Your task to perform on an android device: Find the nearest electronics store that's open tomorrow Image 0: 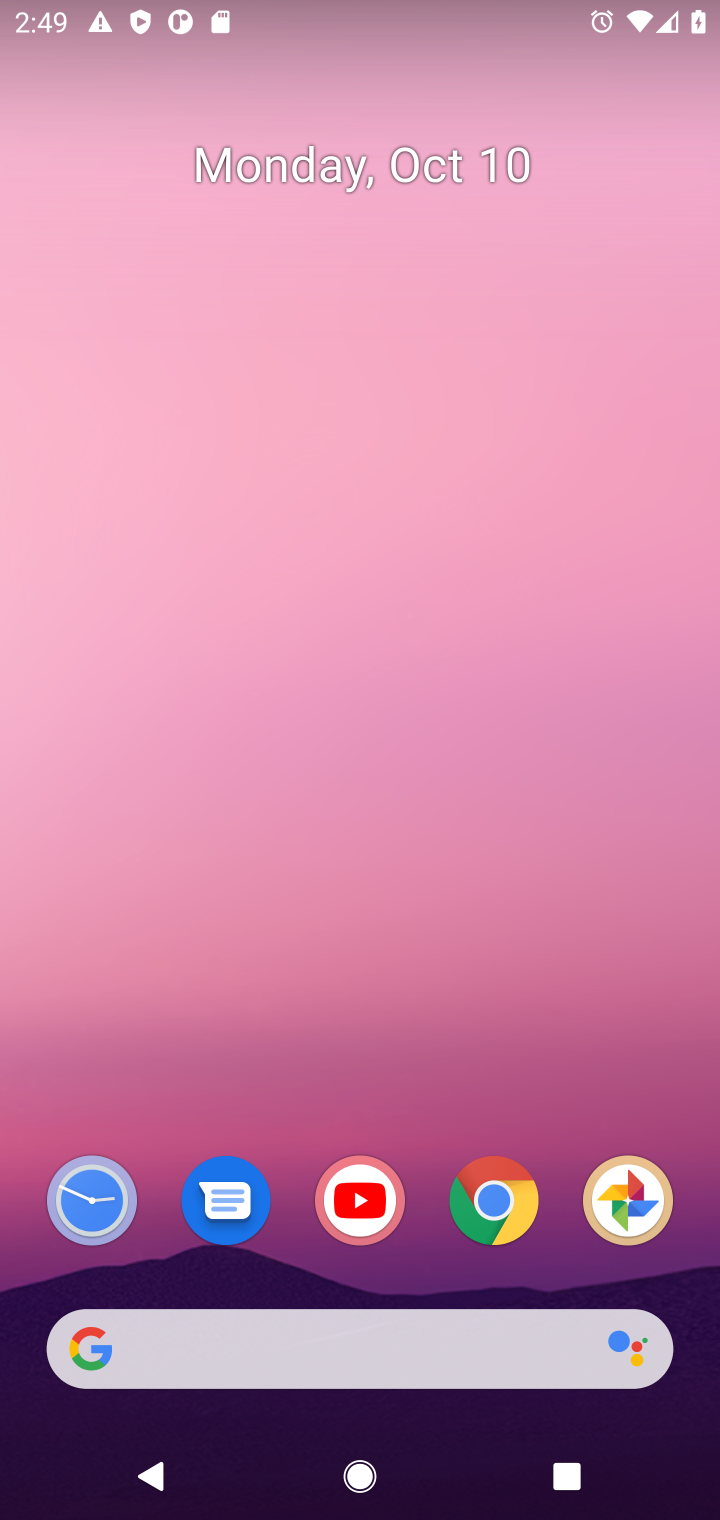
Step 0: drag from (305, 1086) to (166, 350)
Your task to perform on an android device: Find the nearest electronics store that's open tomorrow Image 1: 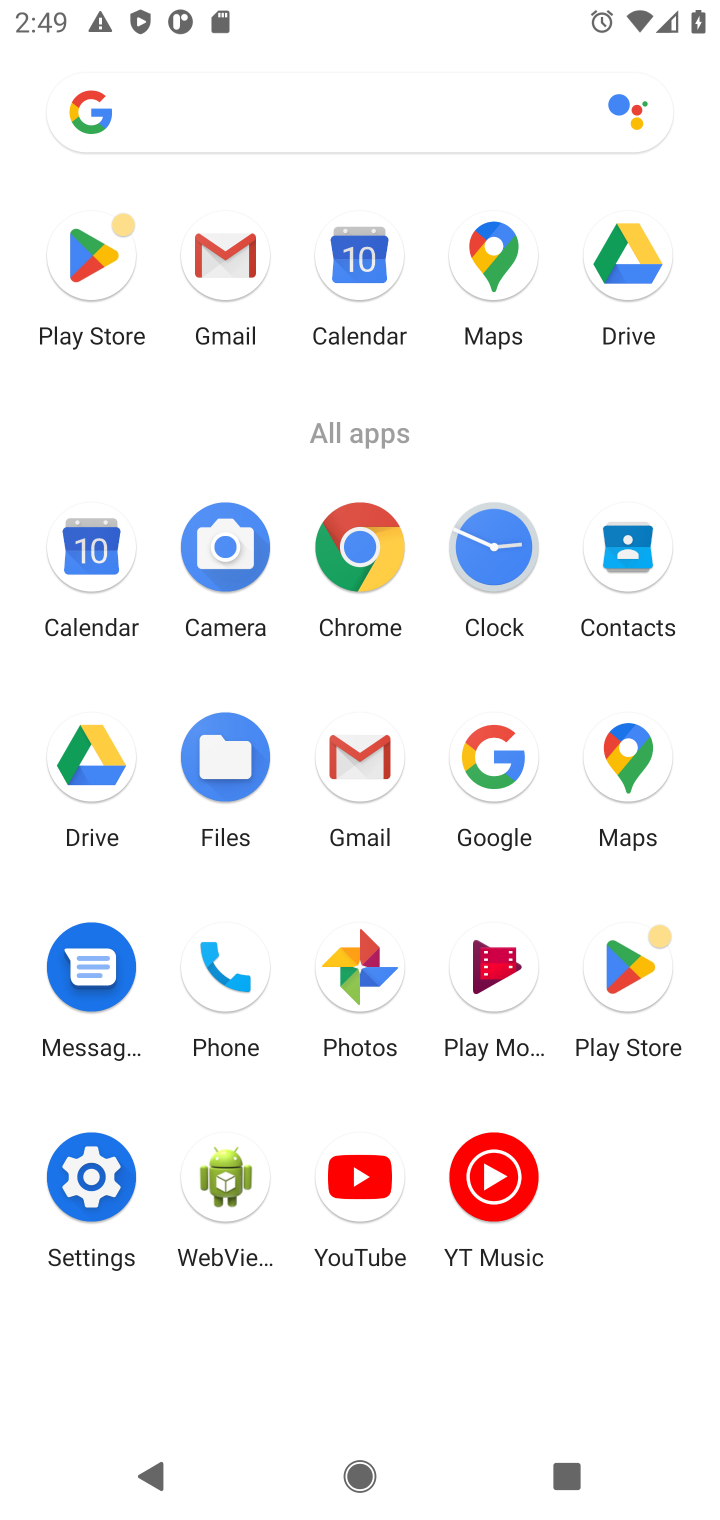
Step 1: click (509, 281)
Your task to perform on an android device: Find the nearest electronics store that's open tomorrow Image 2: 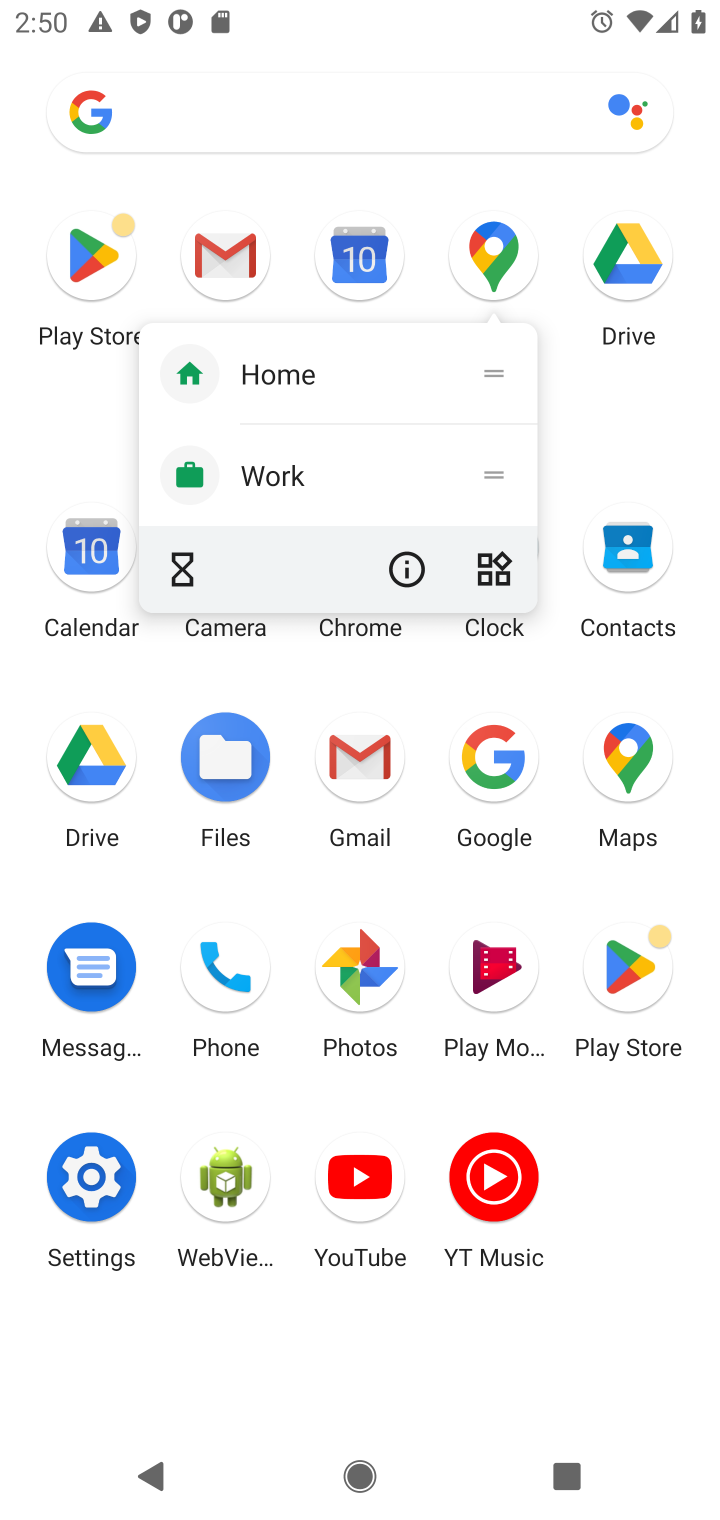
Step 2: click (487, 256)
Your task to perform on an android device: Find the nearest electronics store that's open tomorrow Image 3: 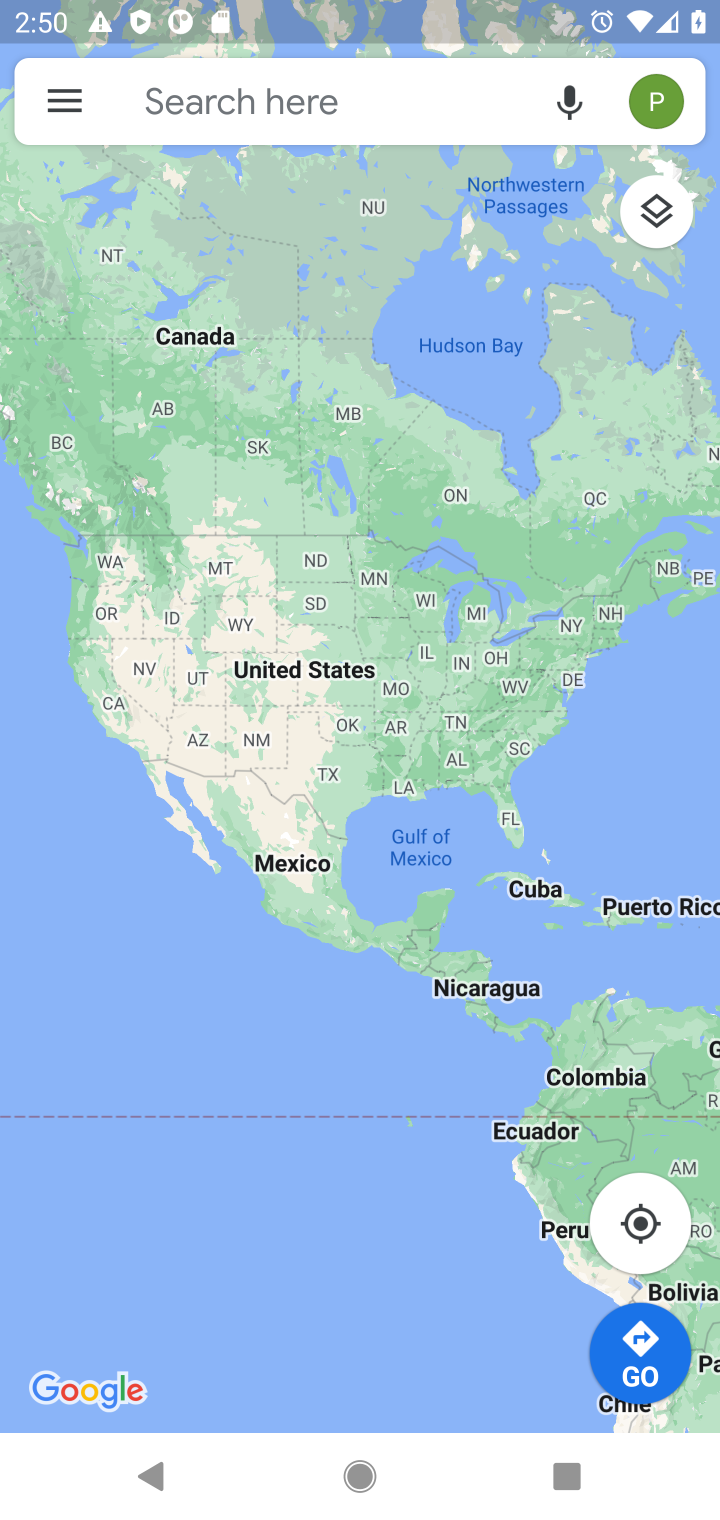
Step 3: click (299, 105)
Your task to perform on an android device: Find the nearest electronics store that's open tomorrow Image 4: 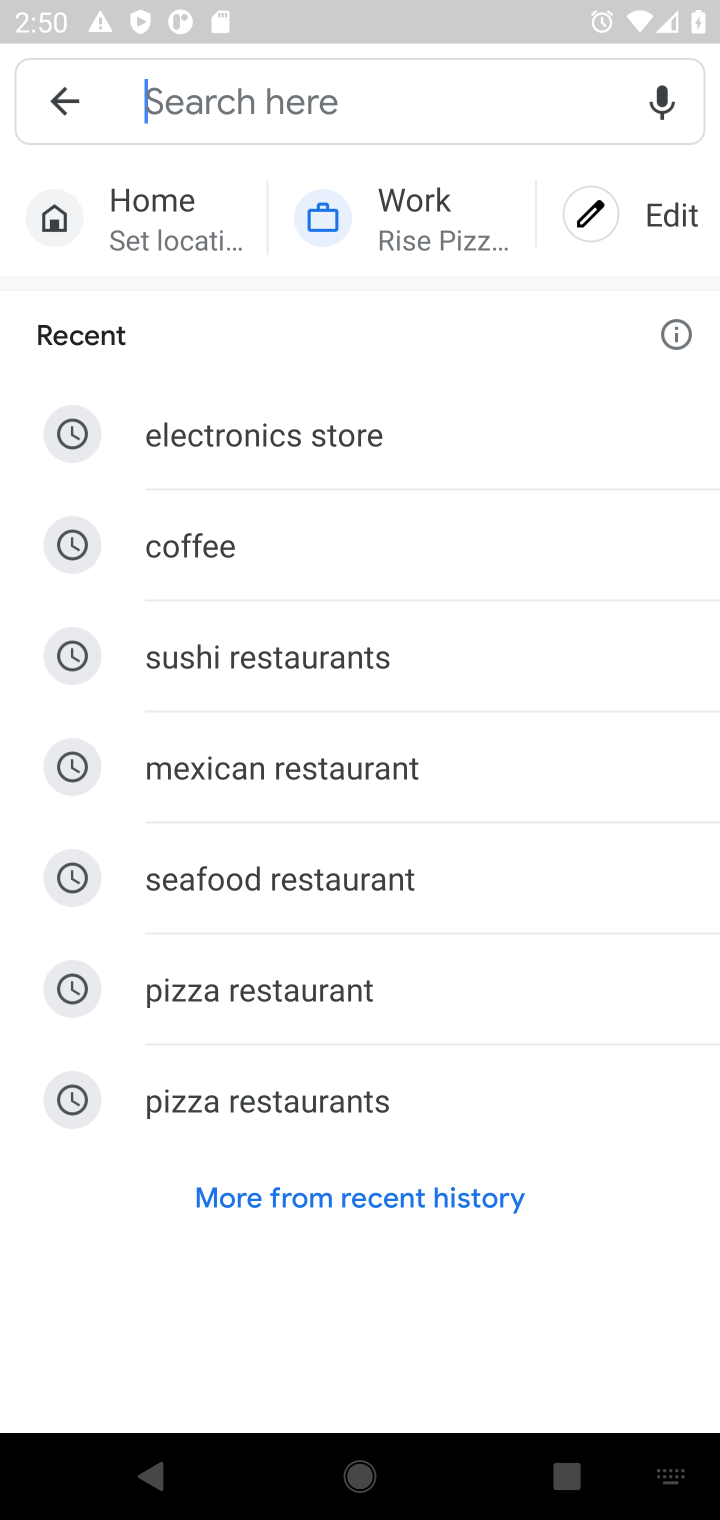
Step 4: click (337, 442)
Your task to perform on an android device: Find the nearest electronics store that's open tomorrow Image 5: 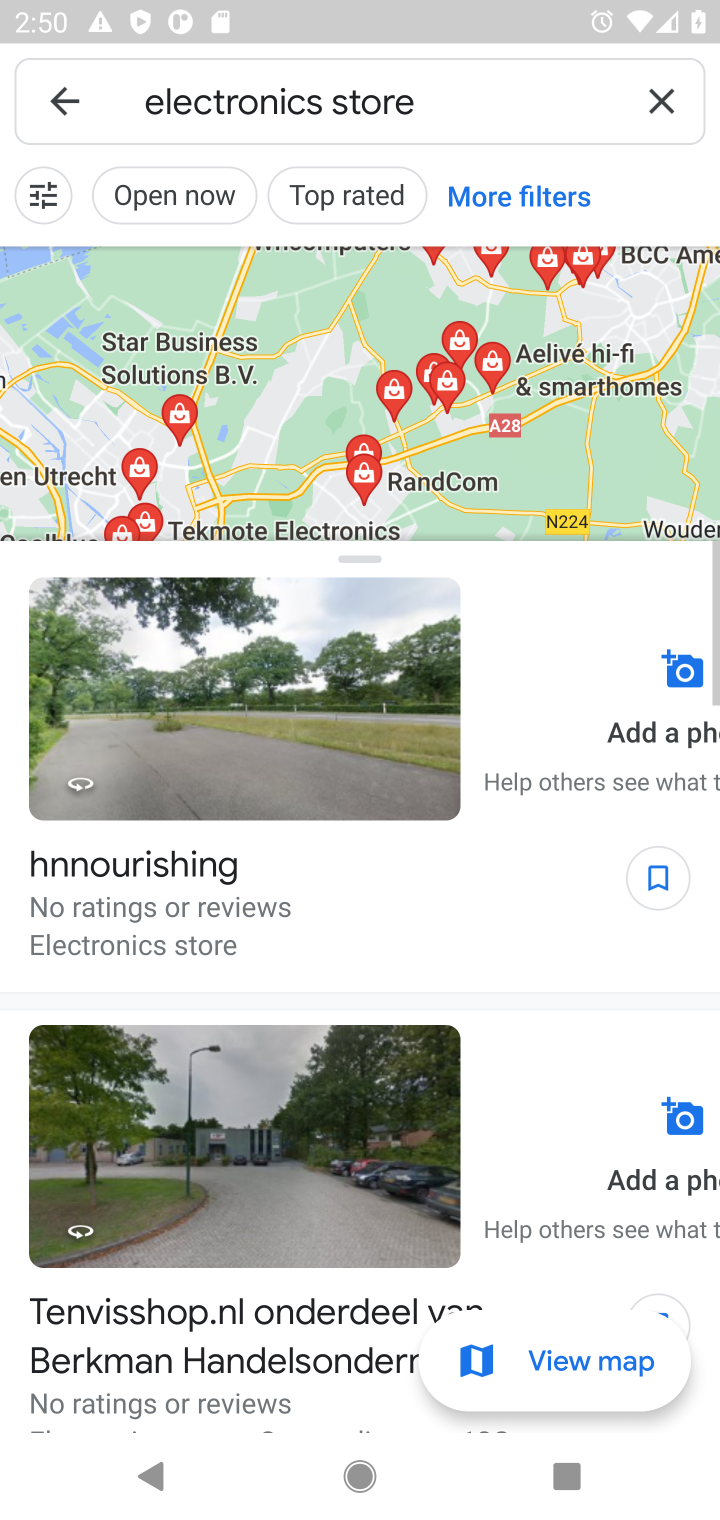
Step 5: click (529, 208)
Your task to perform on an android device: Find the nearest electronics store that's open tomorrow Image 6: 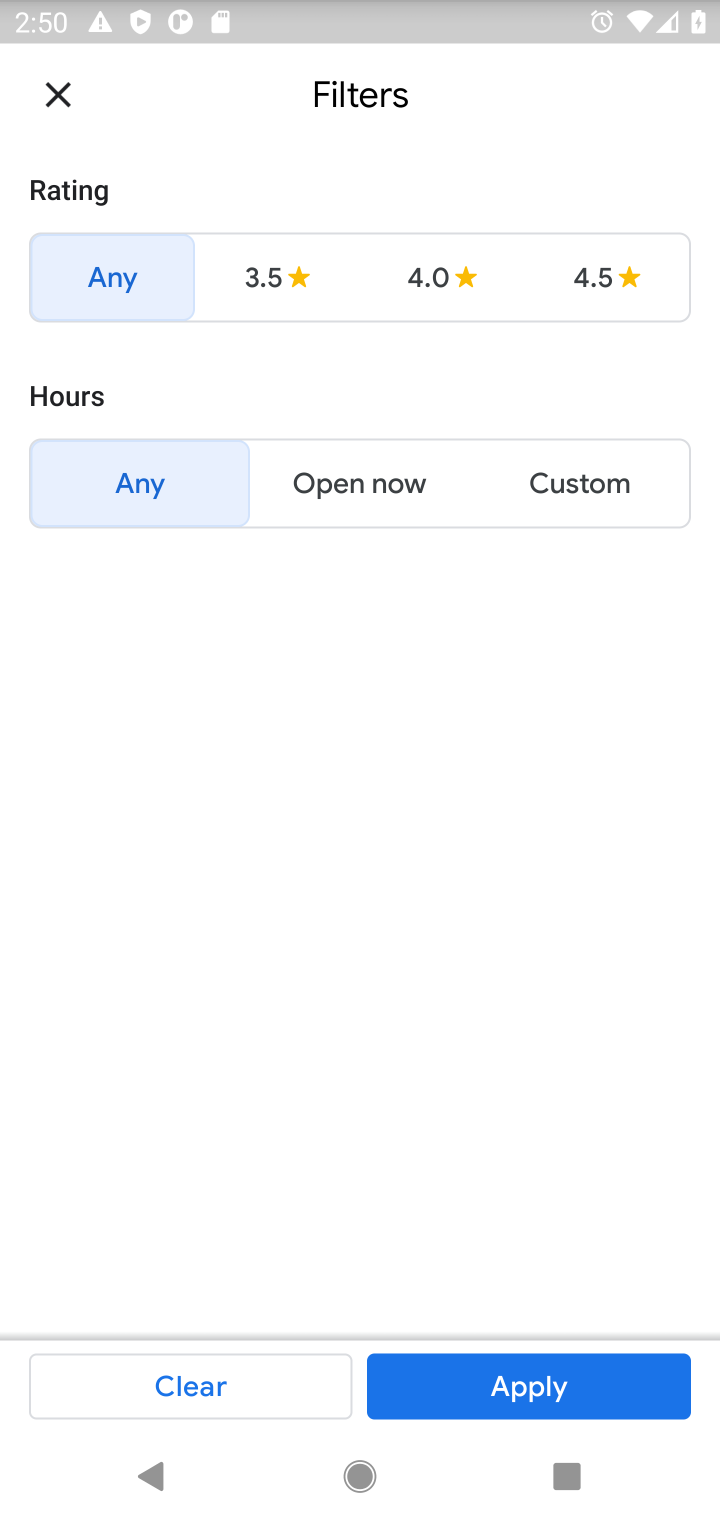
Step 6: click (550, 492)
Your task to perform on an android device: Find the nearest electronics store that's open tomorrow Image 7: 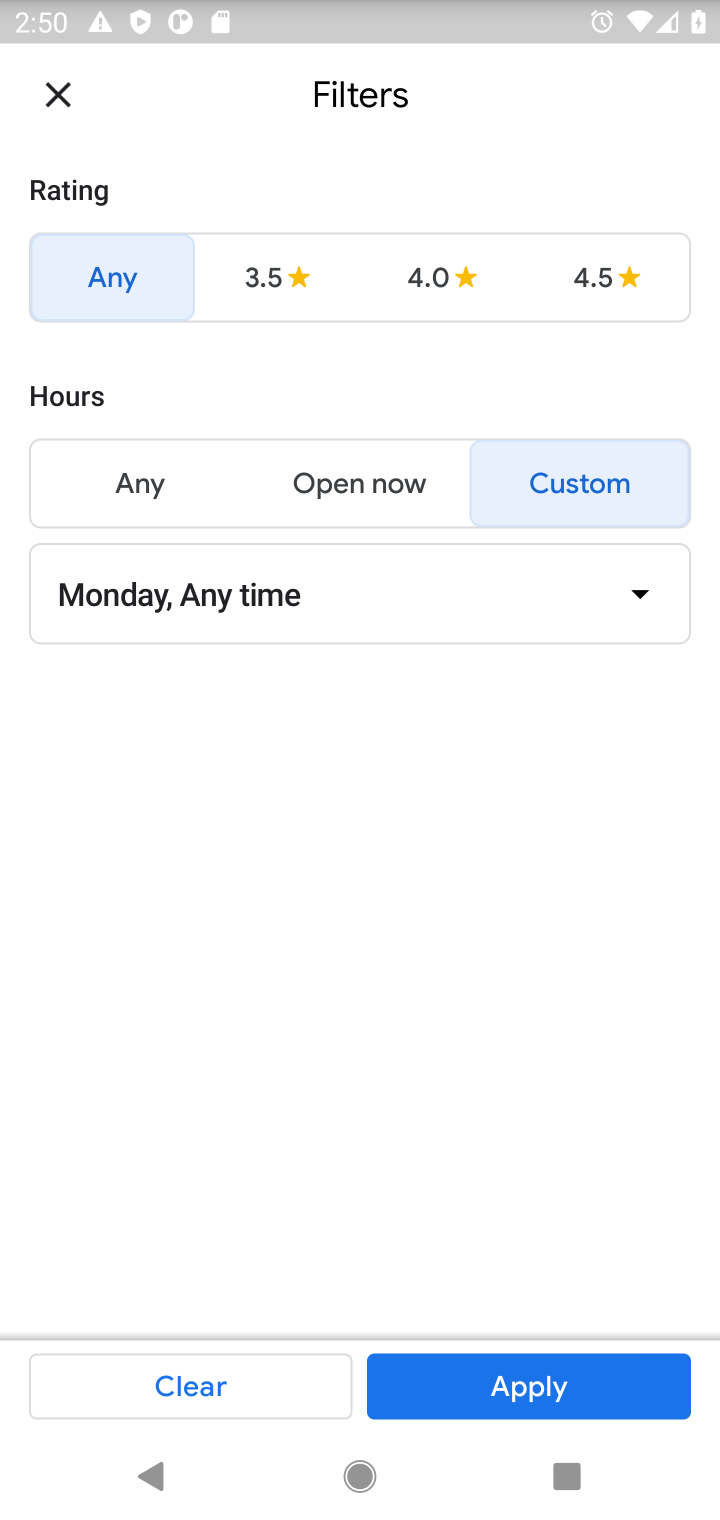
Step 7: click (578, 613)
Your task to perform on an android device: Find the nearest electronics store that's open tomorrow Image 8: 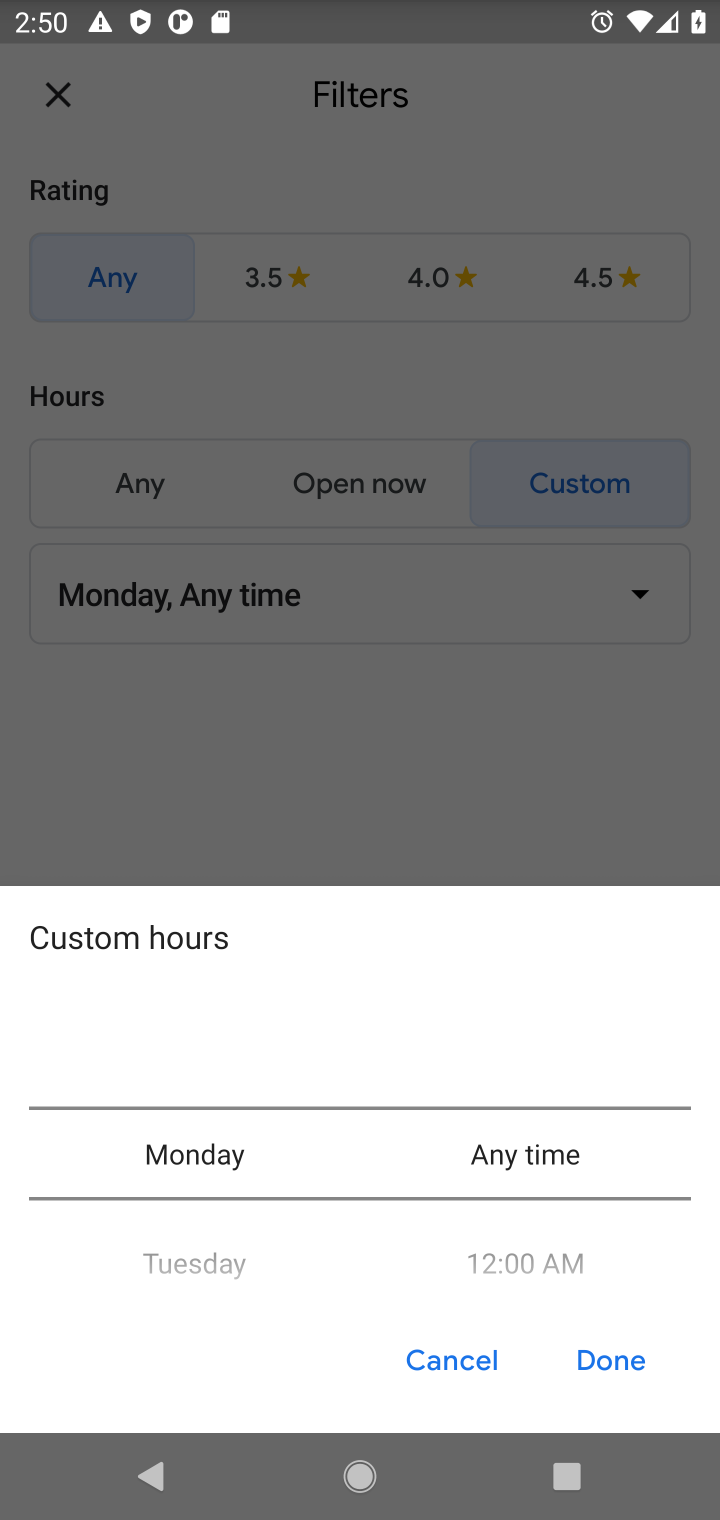
Step 8: click (203, 1265)
Your task to perform on an android device: Find the nearest electronics store that's open tomorrow Image 9: 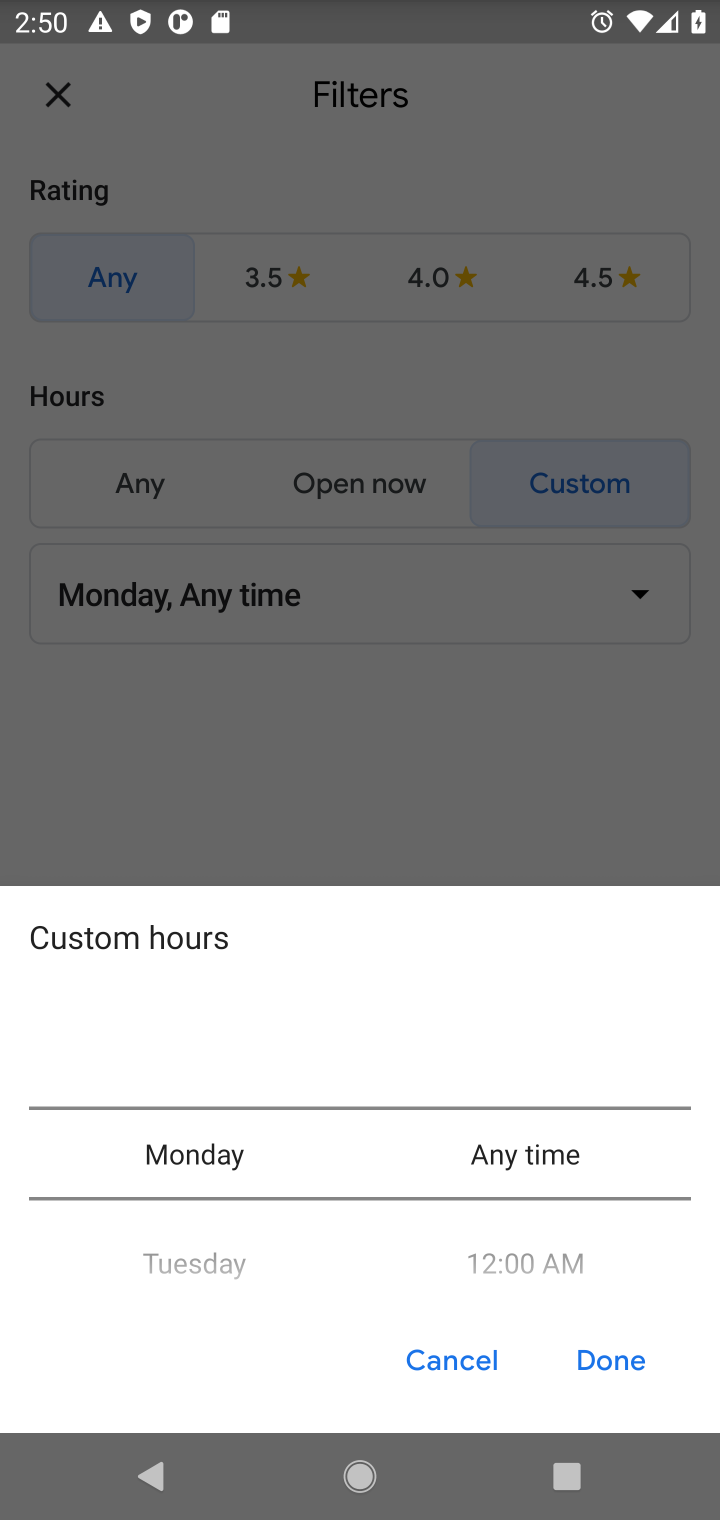
Step 9: click (607, 1375)
Your task to perform on an android device: Find the nearest electronics store that's open tomorrow Image 10: 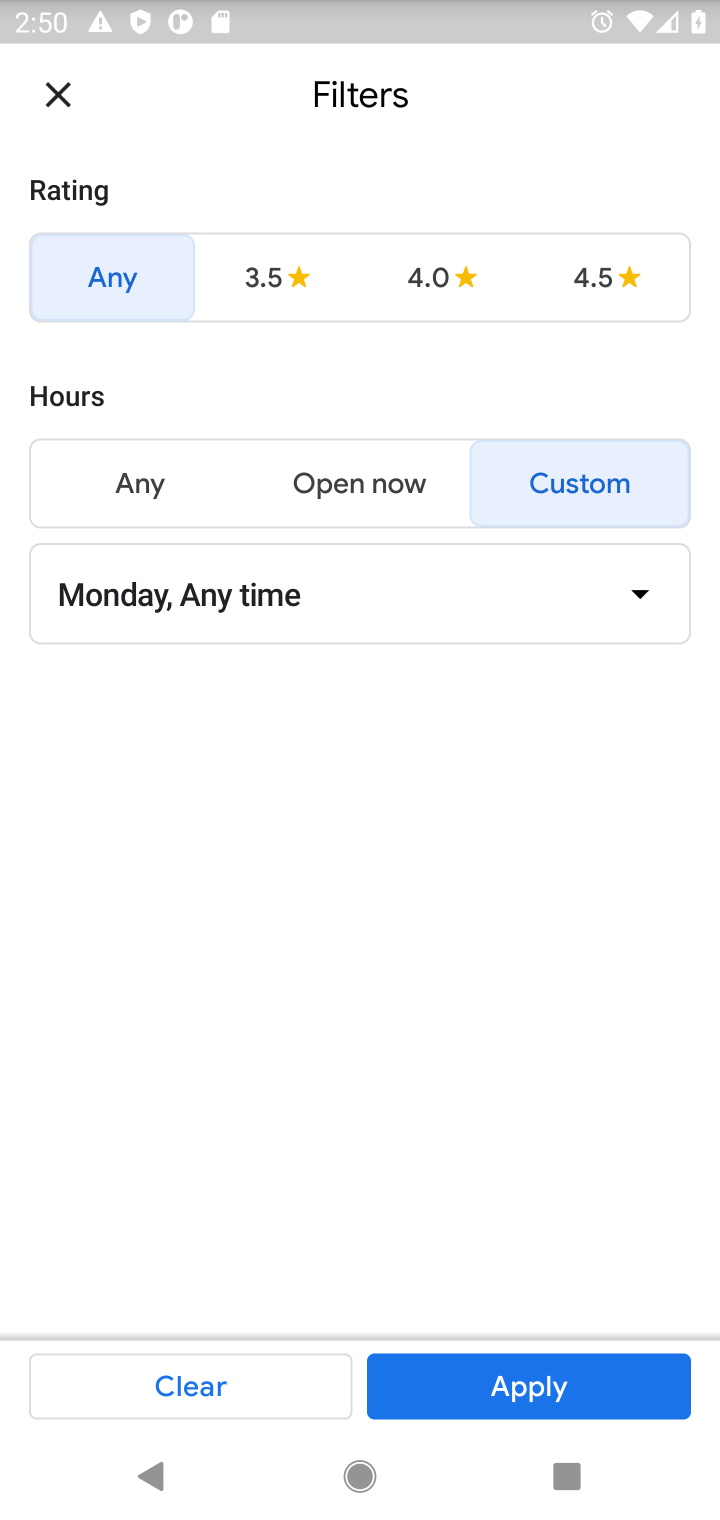
Step 10: click (571, 1405)
Your task to perform on an android device: Find the nearest electronics store that's open tomorrow Image 11: 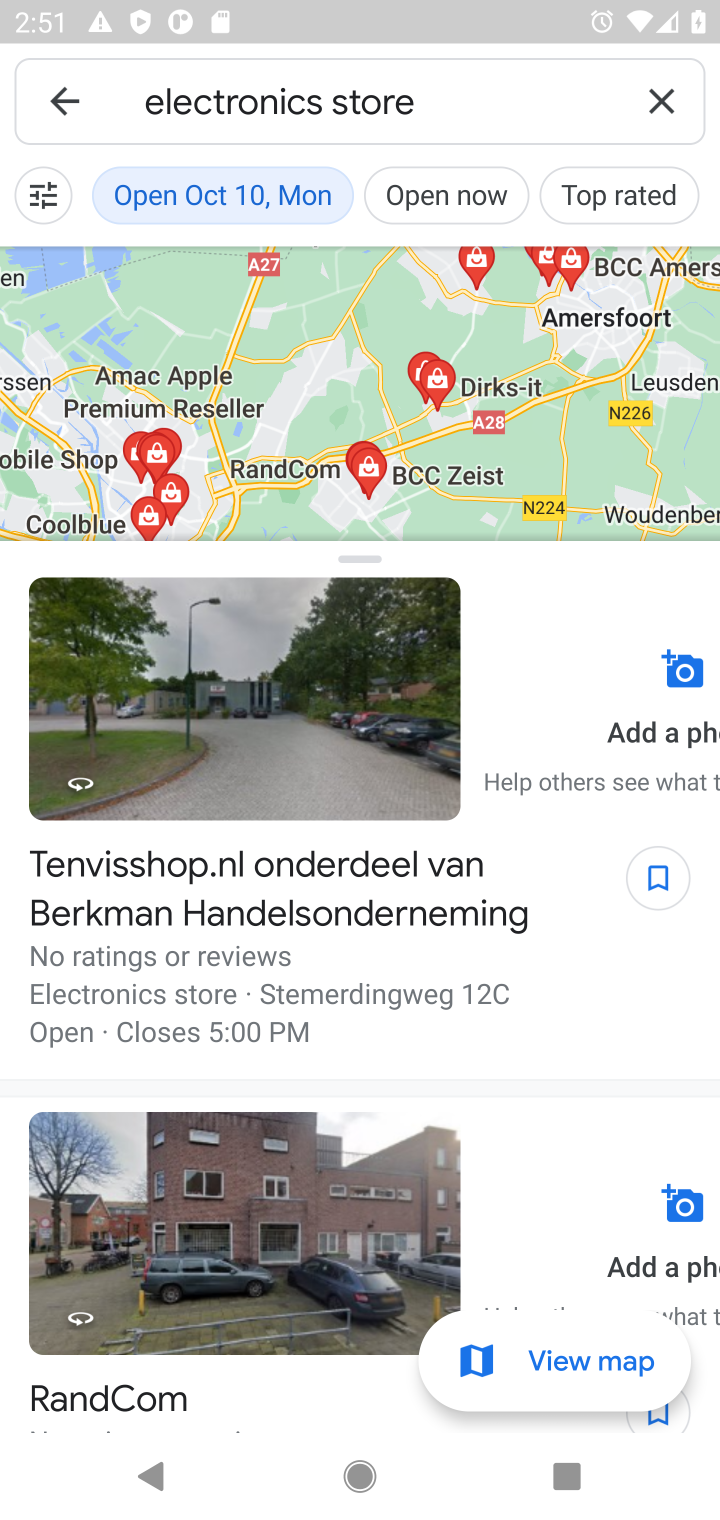
Step 11: task complete